Your task to perform on an android device: Open eBay Image 0: 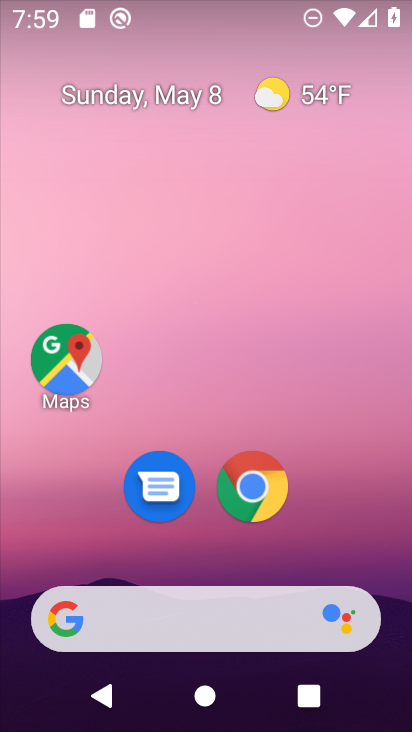
Step 0: click (257, 488)
Your task to perform on an android device: Open eBay Image 1: 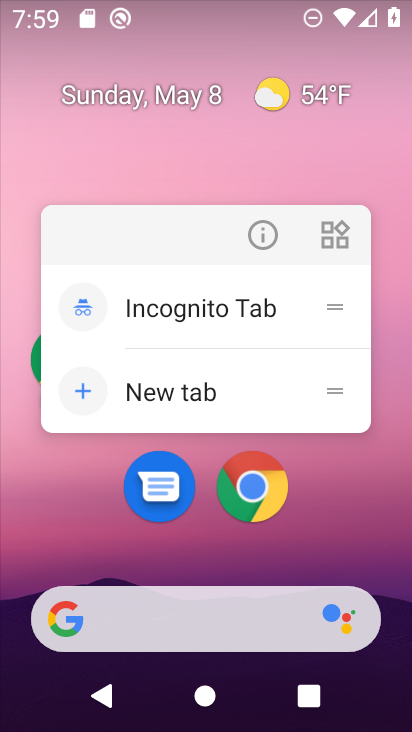
Step 1: click (262, 220)
Your task to perform on an android device: Open eBay Image 2: 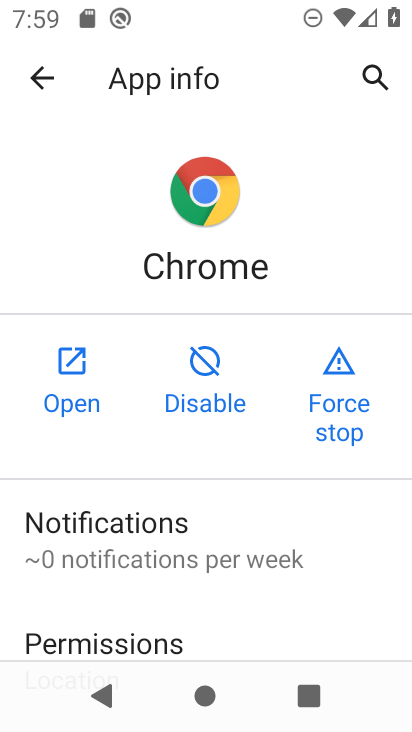
Step 2: click (88, 387)
Your task to perform on an android device: Open eBay Image 3: 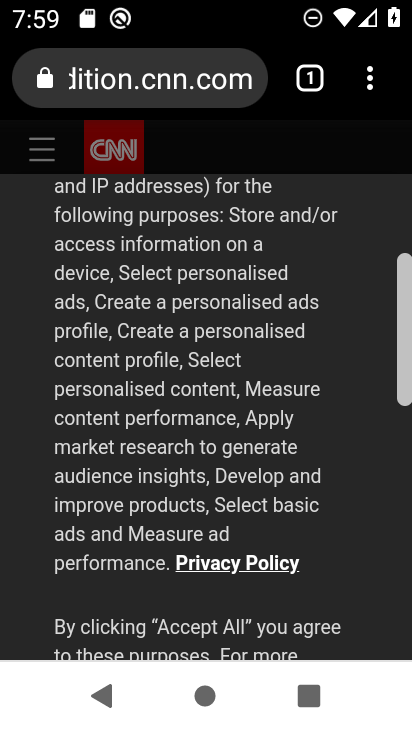
Step 3: click (137, 86)
Your task to perform on an android device: Open eBay Image 4: 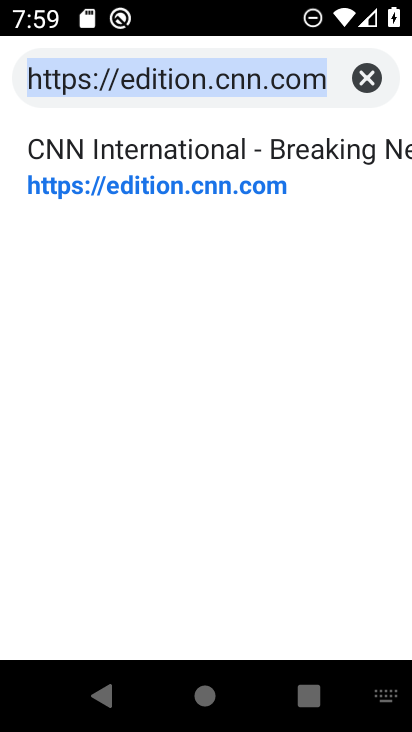
Step 4: type "eBAY"
Your task to perform on an android device: Open eBay Image 5: 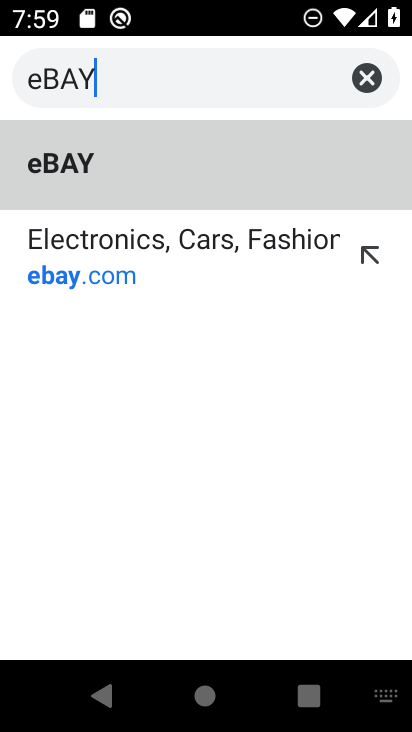
Step 5: click (167, 181)
Your task to perform on an android device: Open eBay Image 6: 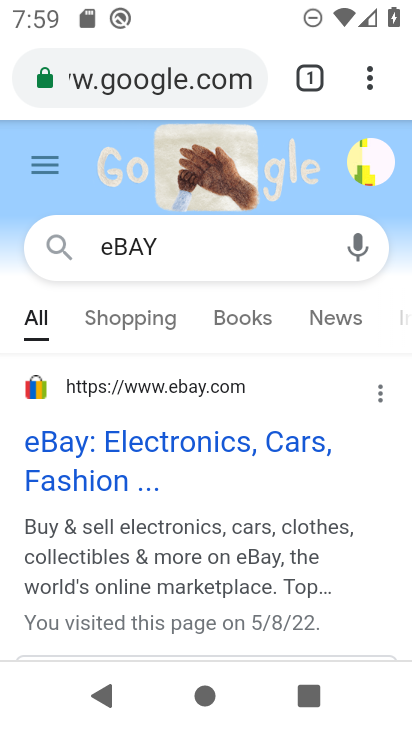
Step 6: task complete